Your task to perform on an android device: star an email in the gmail app Image 0: 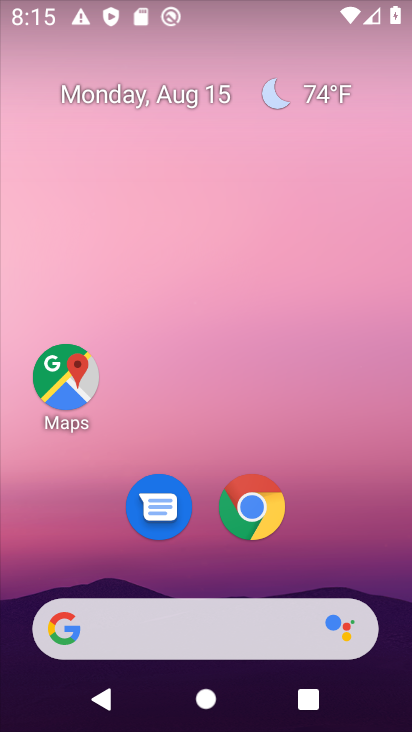
Step 0: drag from (203, 261) to (239, 48)
Your task to perform on an android device: star an email in the gmail app Image 1: 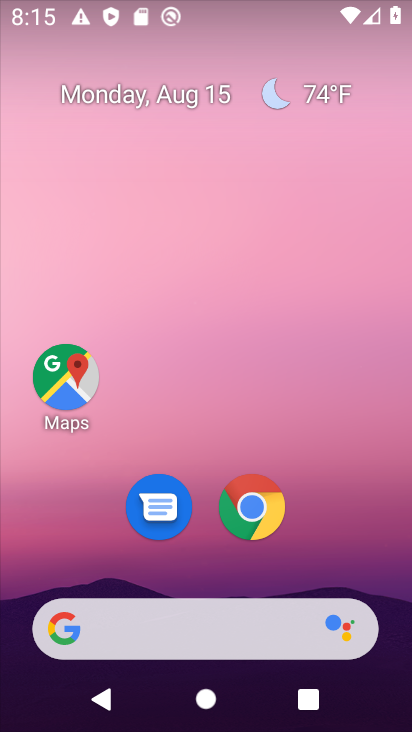
Step 1: drag from (252, 557) to (350, 14)
Your task to perform on an android device: star an email in the gmail app Image 2: 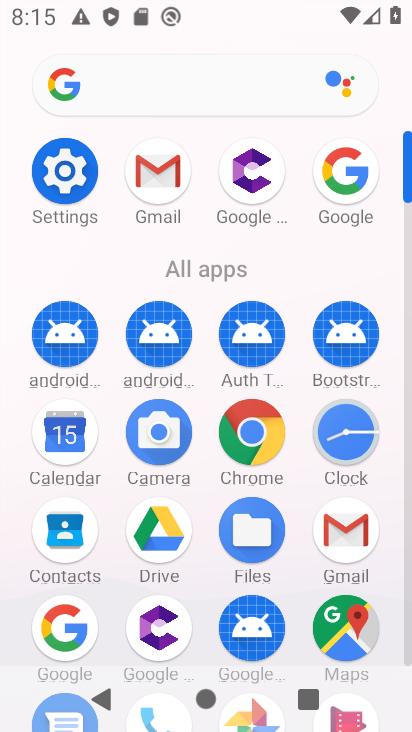
Step 2: click (152, 203)
Your task to perform on an android device: star an email in the gmail app Image 3: 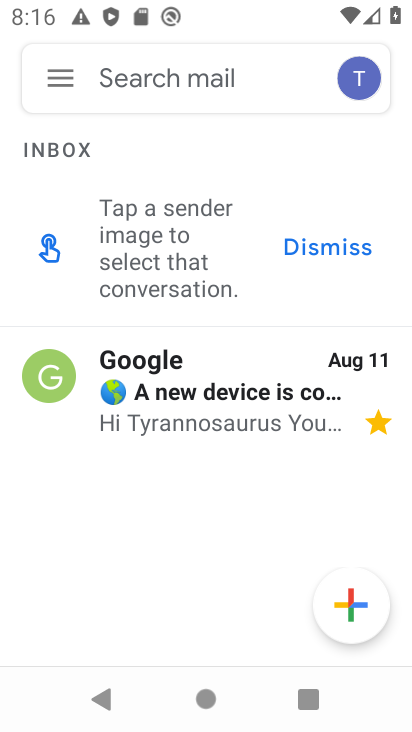
Step 3: click (47, 86)
Your task to perform on an android device: star an email in the gmail app Image 4: 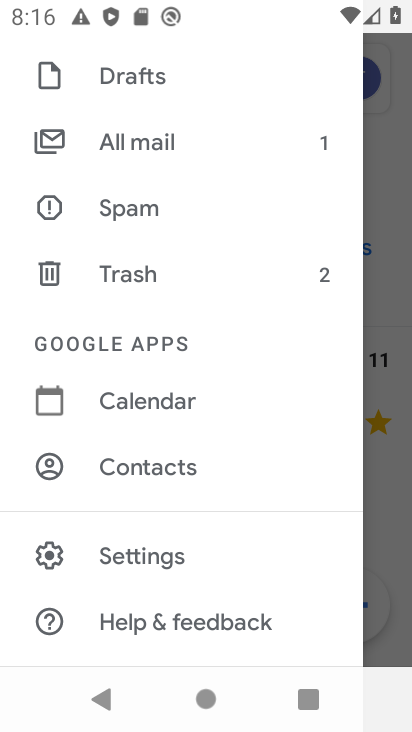
Step 4: click (159, 137)
Your task to perform on an android device: star an email in the gmail app Image 5: 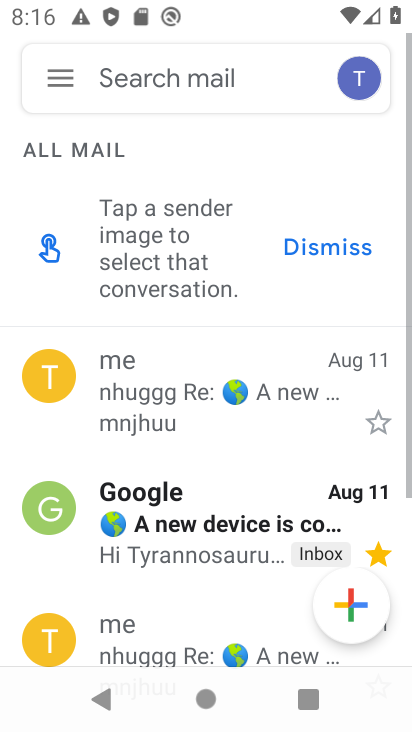
Step 5: click (381, 425)
Your task to perform on an android device: star an email in the gmail app Image 6: 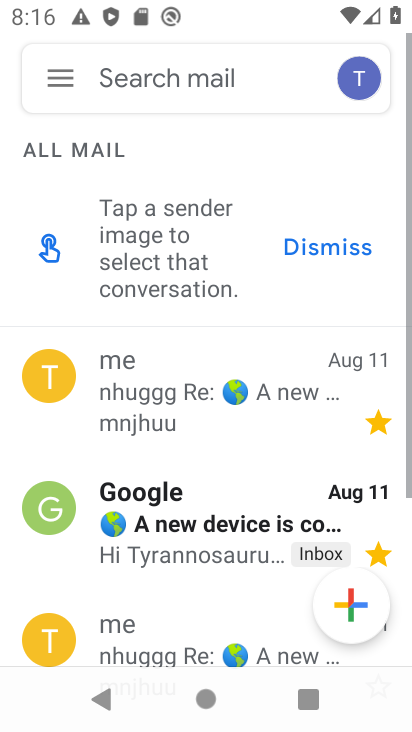
Step 6: task complete